Your task to perform on an android device: turn off data saver in the chrome app Image 0: 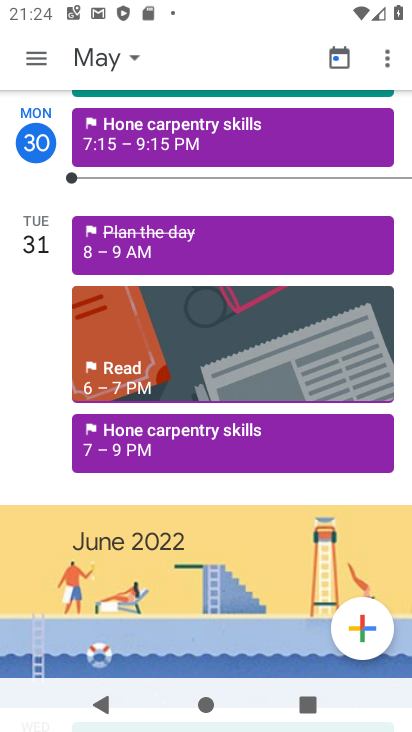
Step 0: press home button
Your task to perform on an android device: turn off data saver in the chrome app Image 1: 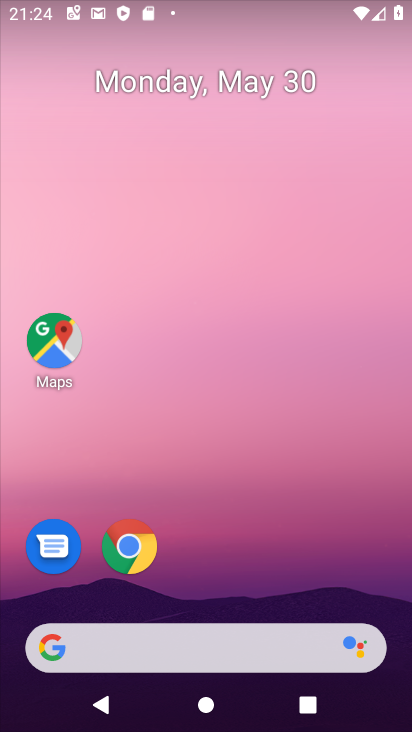
Step 1: drag from (359, 592) to (324, 173)
Your task to perform on an android device: turn off data saver in the chrome app Image 2: 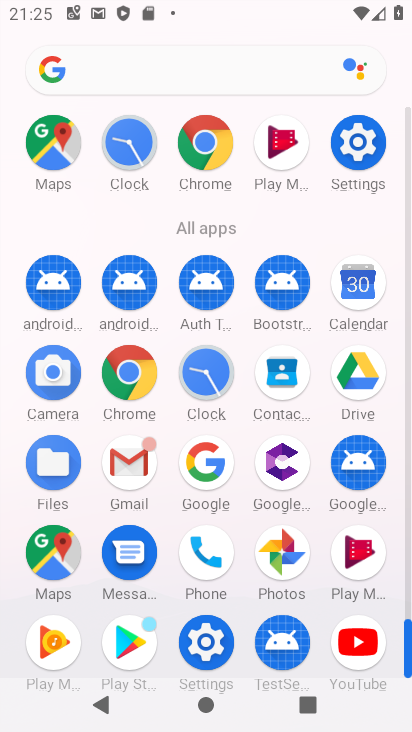
Step 2: click (134, 379)
Your task to perform on an android device: turn off data saver in the chrome app Image 3: 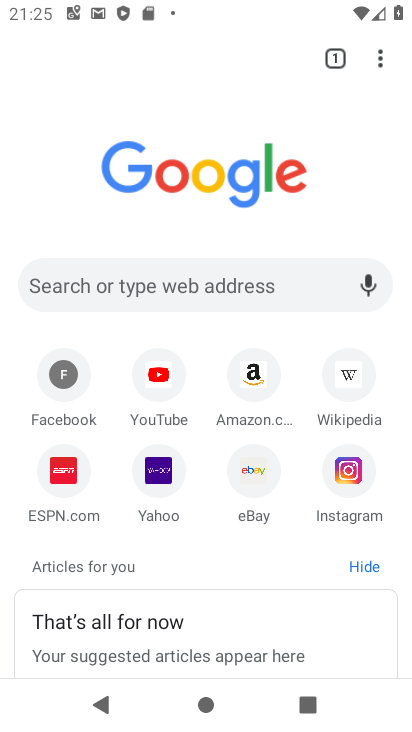
Step 3: drag from (389, 68) to (190, 490)
Your task to perform on an android device: turn off data saver in the chrome app Image 4: 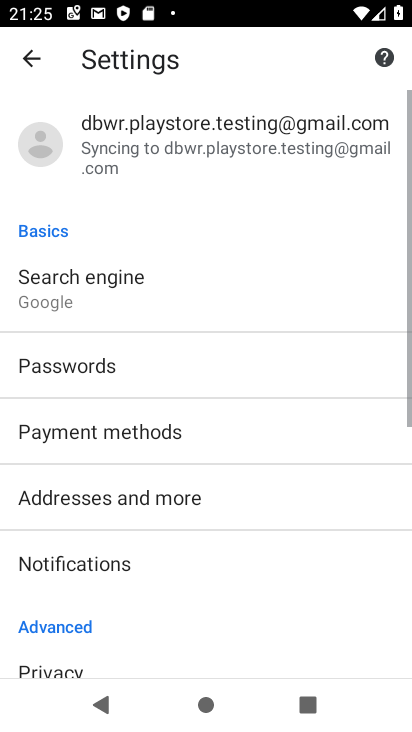
Step 4: drag from (207, 652) to (246, 266)
Your task to perform on an android device: turn off data saver in the chrome app Image 5: 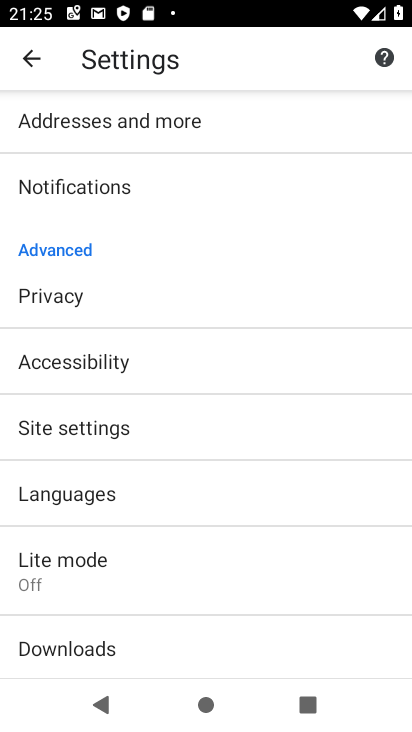
Step 5: click (155, 557)
Your task to perform on an android device: turn off data saver in the chrome app Image 6: 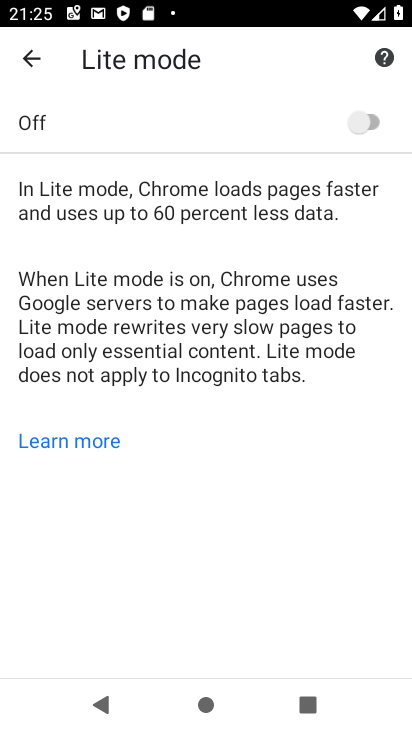
Step 6: task complete